Your task to perform on an android device: turn on the 12-hour format for clock Image 0: 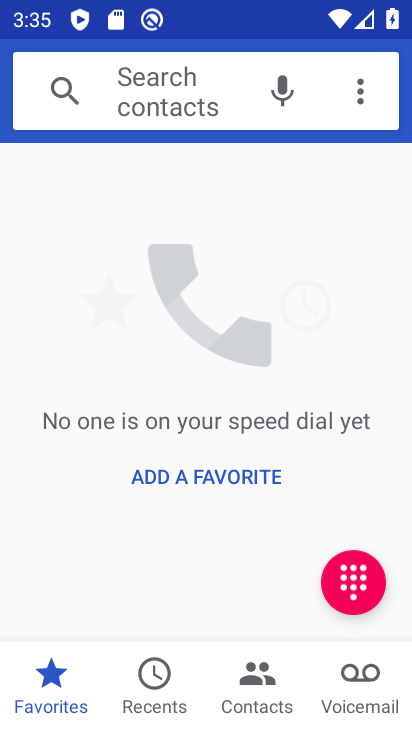
Step 0: press home button
Your task to perform on an android device: turn on the 12-hour format for clock Image 1: 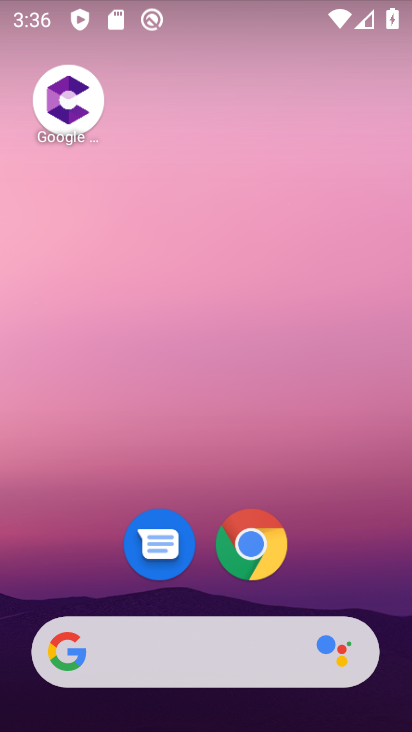
Step 1: drag from (168, 657) to (130, 121)
Your task to perform on an android device: turn on the 12-hour format for clock Image 2: 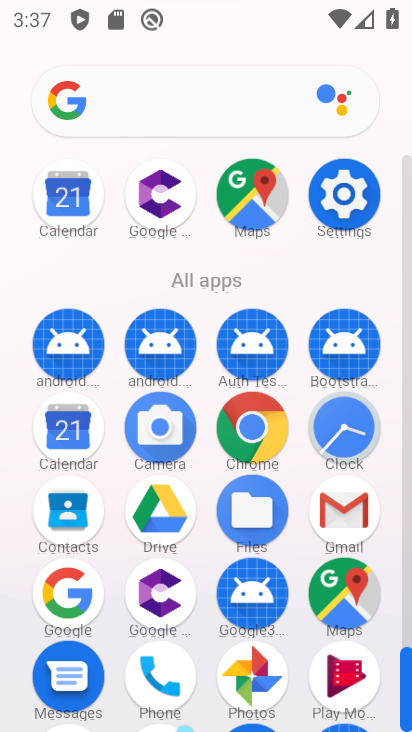
Step 2: click (364, 201)
Your task to perform on an android device: turn on the 12-hour format for clock Image 3: 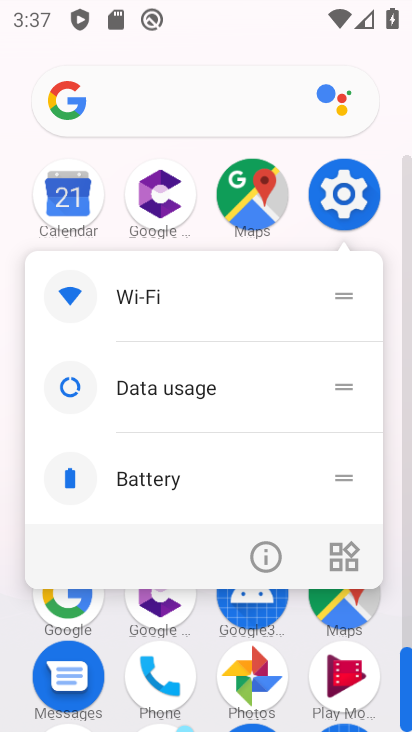
Step 3: click (329, 209)
Your task to perform on an android device: turn on the 12-hour format for clock Image 4: 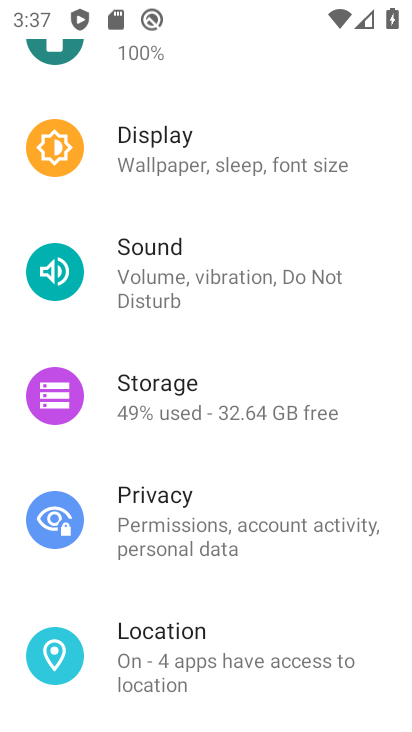
Step 4: drag from (195, 639) to (170, 149)
Your task to perform on an android device: turn on the 12-hour format for clock Image 5: 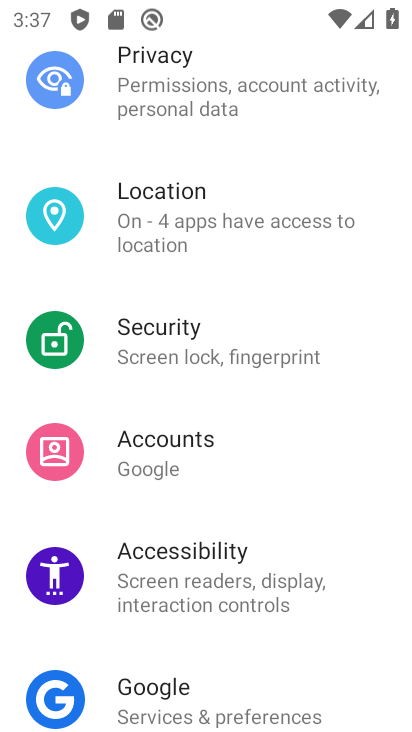
Step 5: drag from (146, 688) to (213, 25)
Your task to perform on an android device: turn on the 12-hour format for clock Image 6: 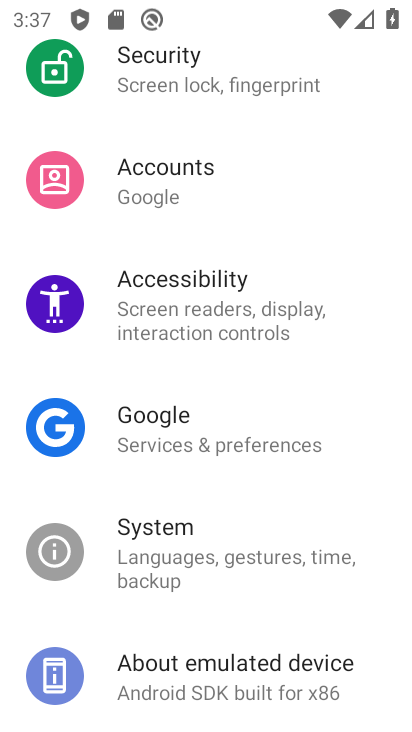
Step 6: click (204, 561)
Your task to perform on an android device: turn on the 12-hour format for clock Image 7: 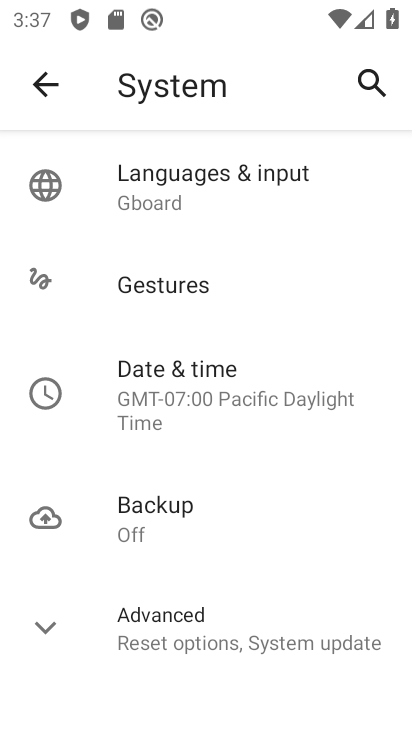
Step 7: click (228, 402)
Your task to perform on an android device: turn on the 12-hour format for clock Image 8: 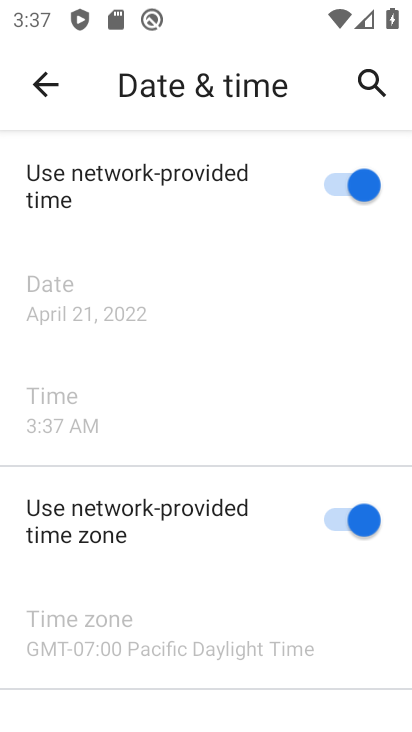
Step 8: task complete